Your task to perform on an android device: Go to Maps Image 0: 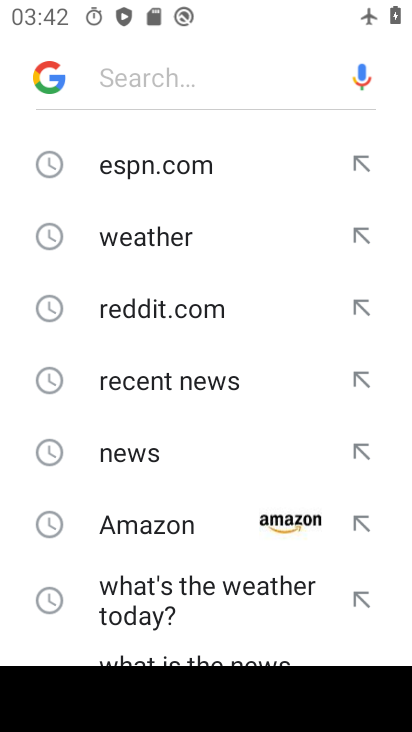
Step 0: press home button
Your task to perform on an android device: Go to Maps Image 1: 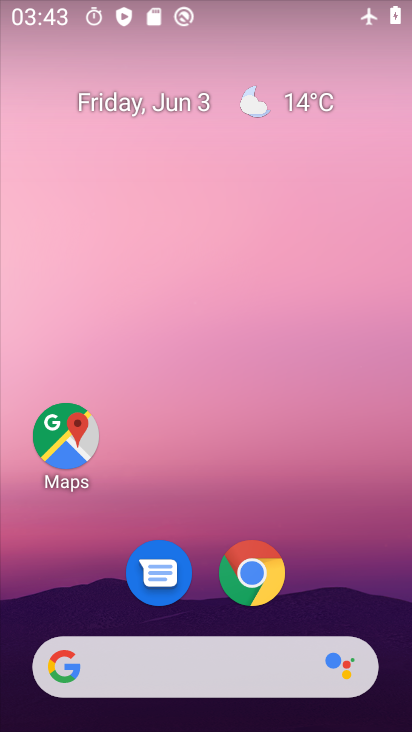
Step 1: drag from (180, 636) to (259, 56)
Your task to perform on an android device: Go to Maps Image 2: 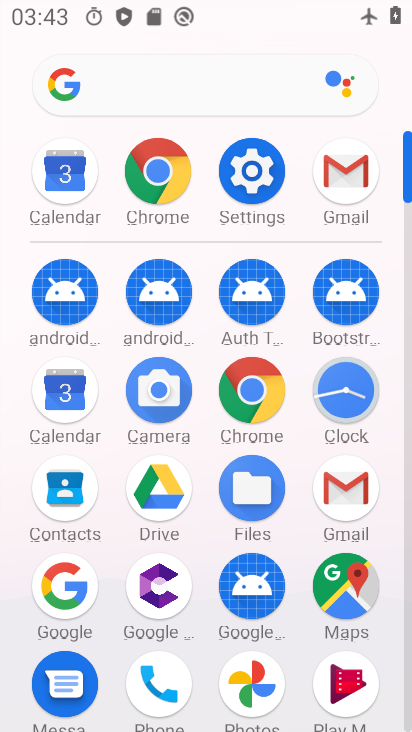
Step 2: click (340, 576)
Your task to perform on an android device: Go to Maps Image 3: 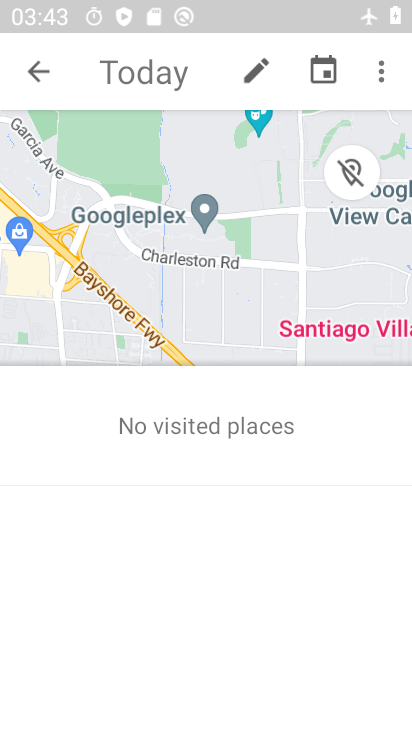
Step 3: task complete